Your task to perform on an android device: open app "Upside-Cash back on gas & food" (install if not already installed), go to login, and select forgot password Image 0: 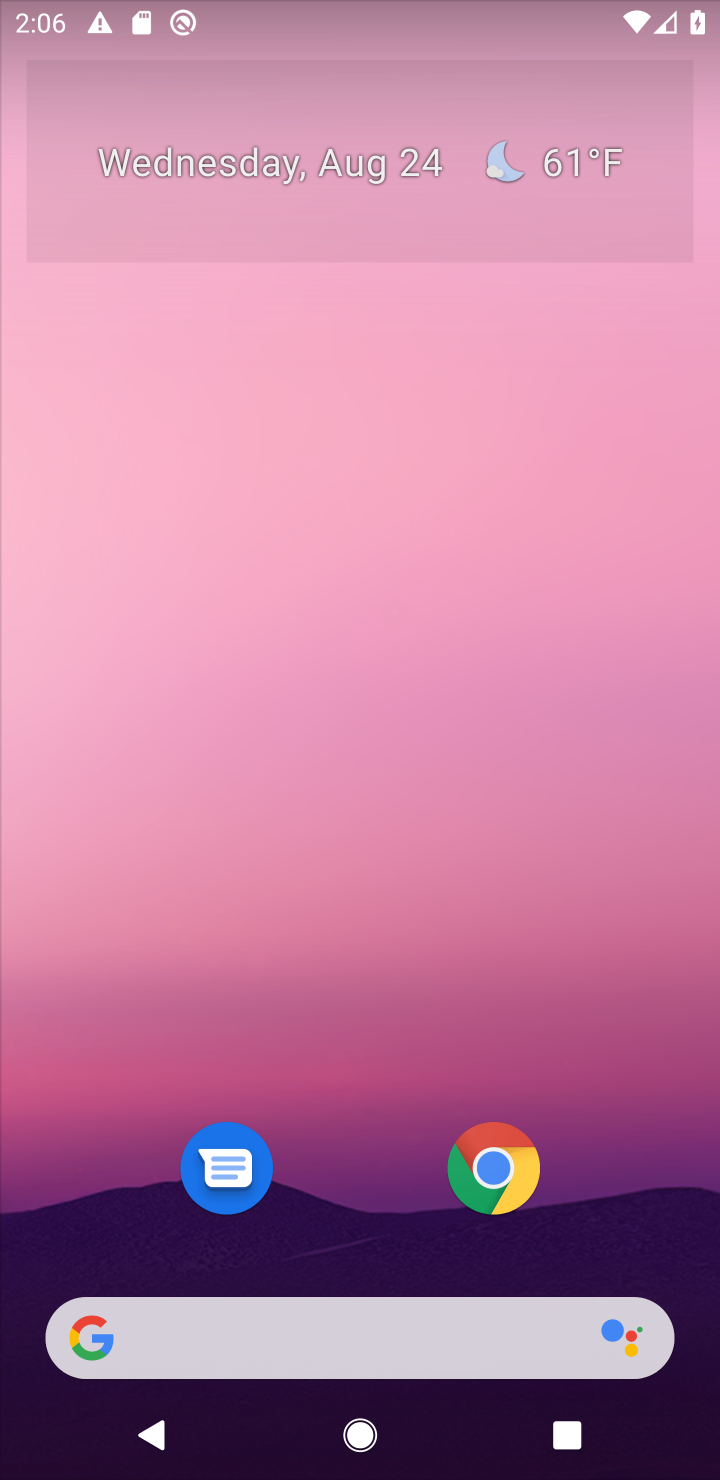
Step 0: drag from (640, 1210) to (582, 239)
Your task to perform on an android device: open app "Upside-Cash back on gas & food" (install if not already installed), go to login, and select forgot password Image 1: 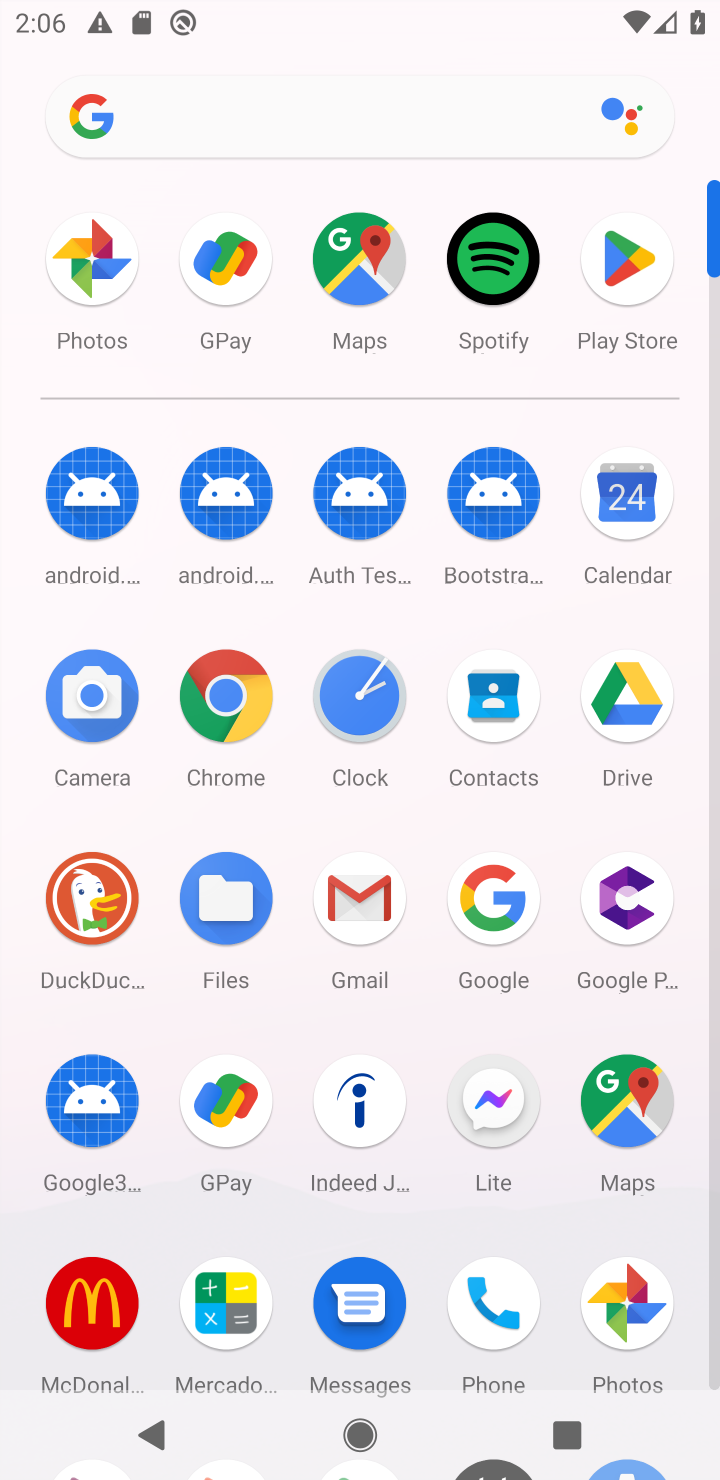
Step 1: click (710, 1224)
Your task to perform on an android device: open app "Upside-Cash back on gas & food" (install if not already installed), go to login, and select forgot password Image 2: 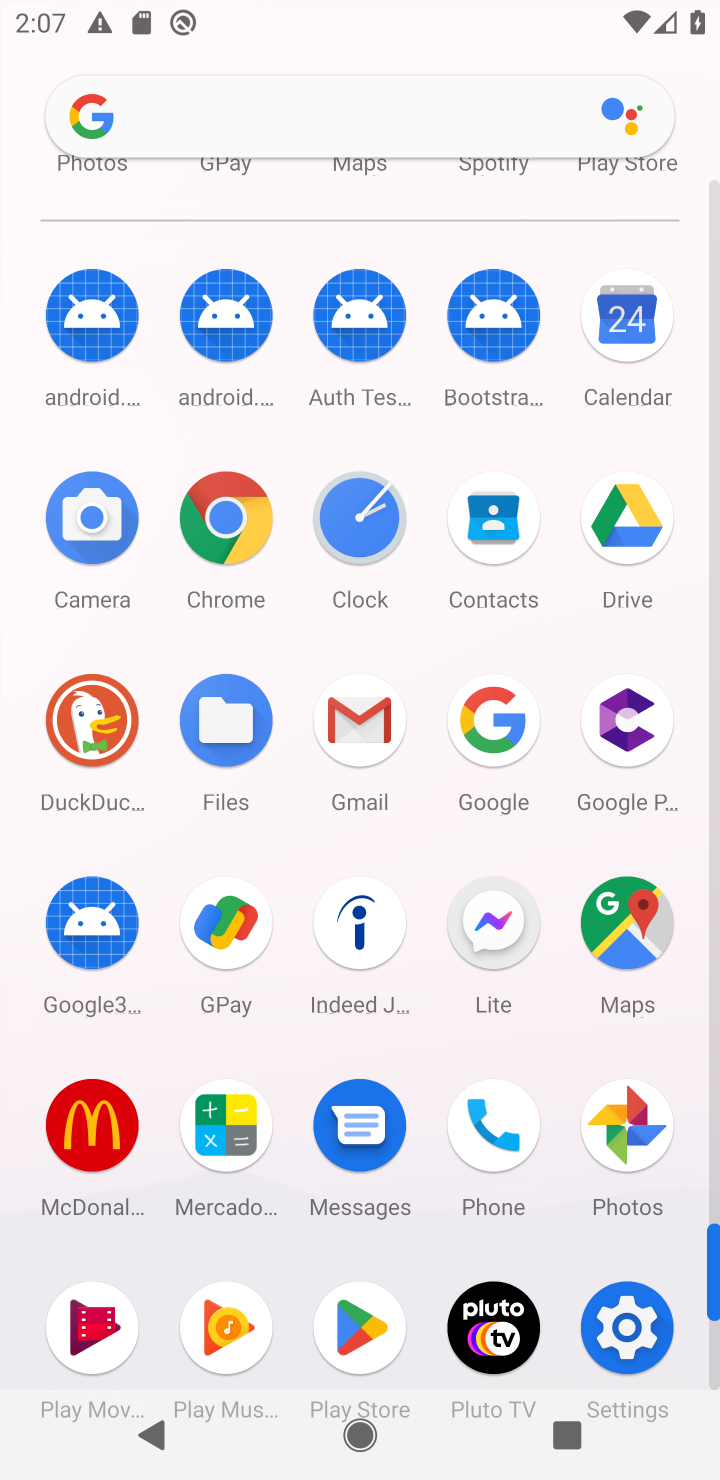
Step 2: click (365, 1320)
Your task to perform on an android device: open app "Upside-Cash back on gas & food" (install if not already installed), go to login, and select forgot password Image 3: 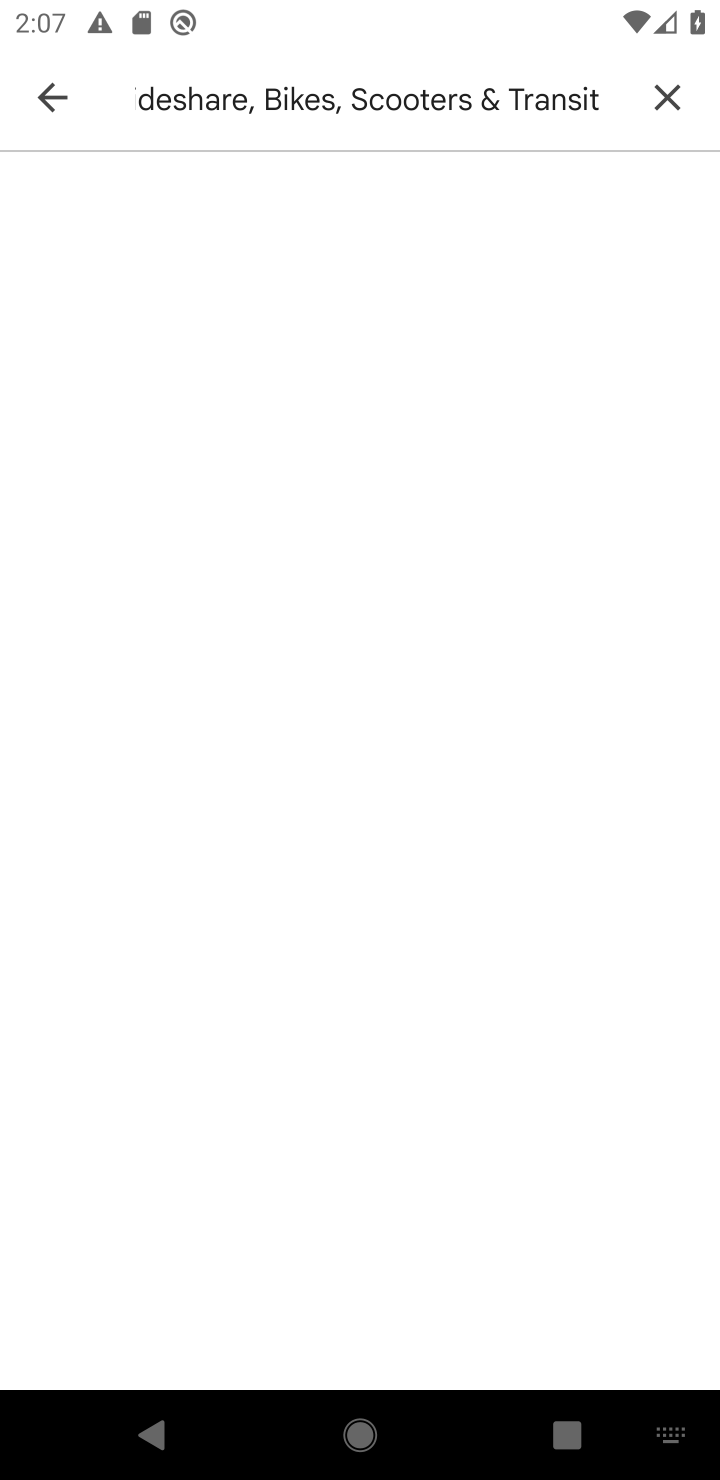
Step 3: click (674, 91)
Your task to perform on an android device: open app "Upside-Cash back on gas & food" (install if not already installed), go to login, and select forgot password Image 4: 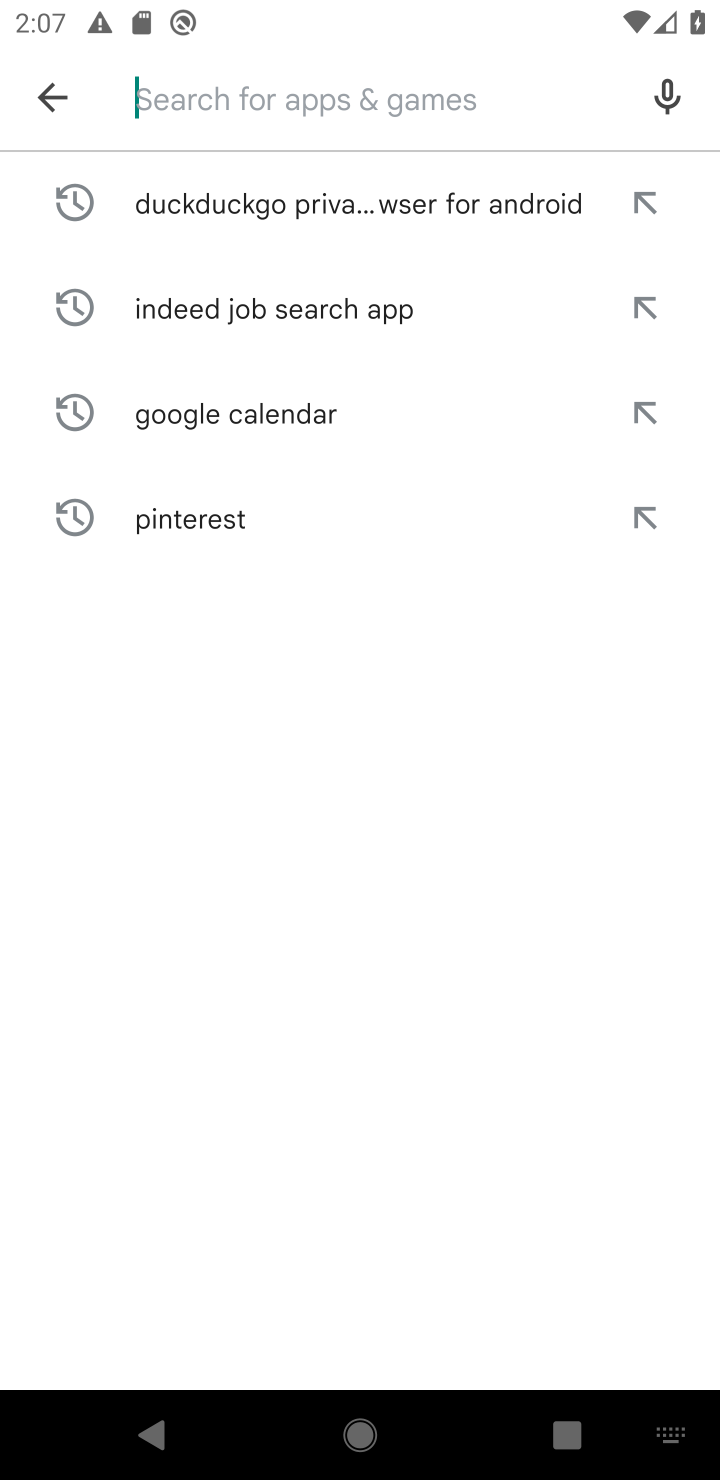
Step 4: type "Upside-Cash back on gas & food"
Your task to perform on an android device: open app "Upside-Cash back on gas & food" (install if not already installed), go to login, and select forgot password Image 5: 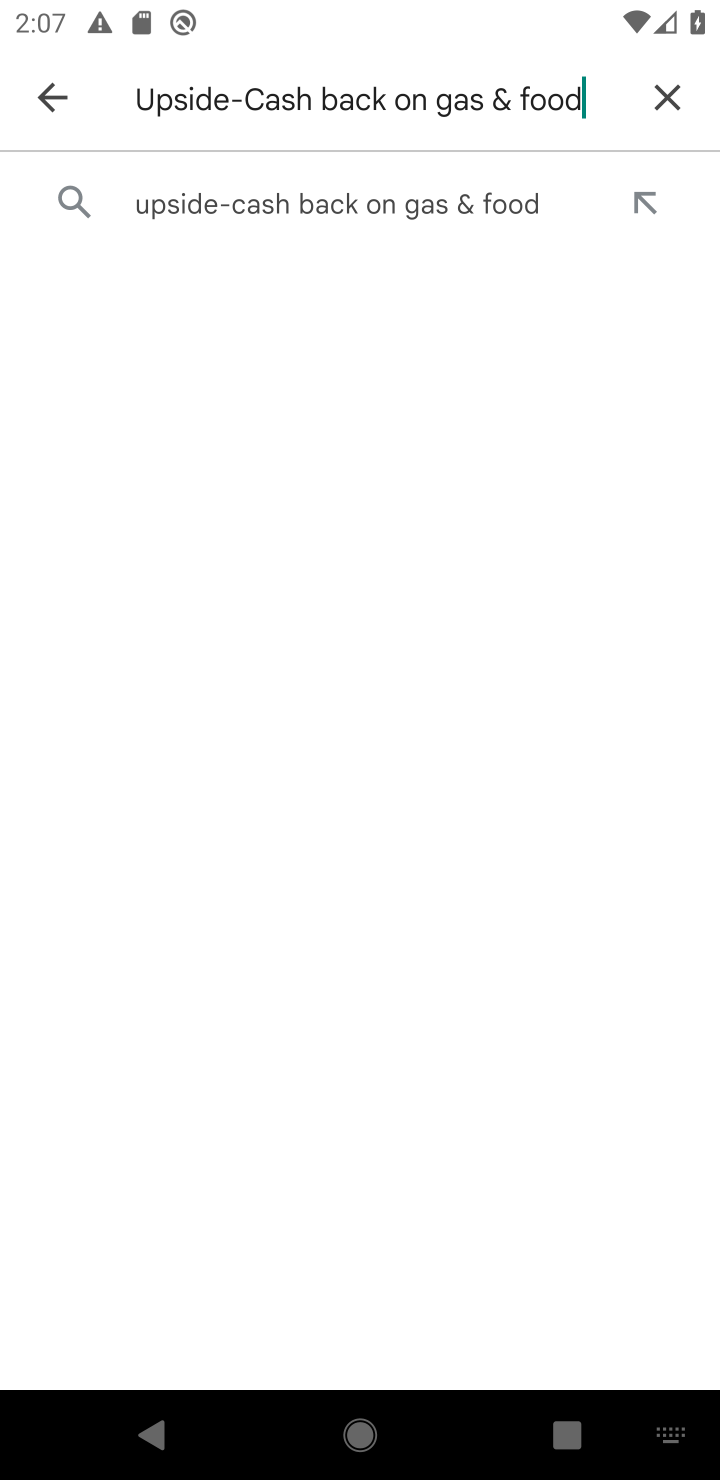
Step 5: click (223, 199)
Your task to perform on an android device: open app "Upside-Cash back on gas & food" (install if not already installed), go to login, and select forgot password Image 6: 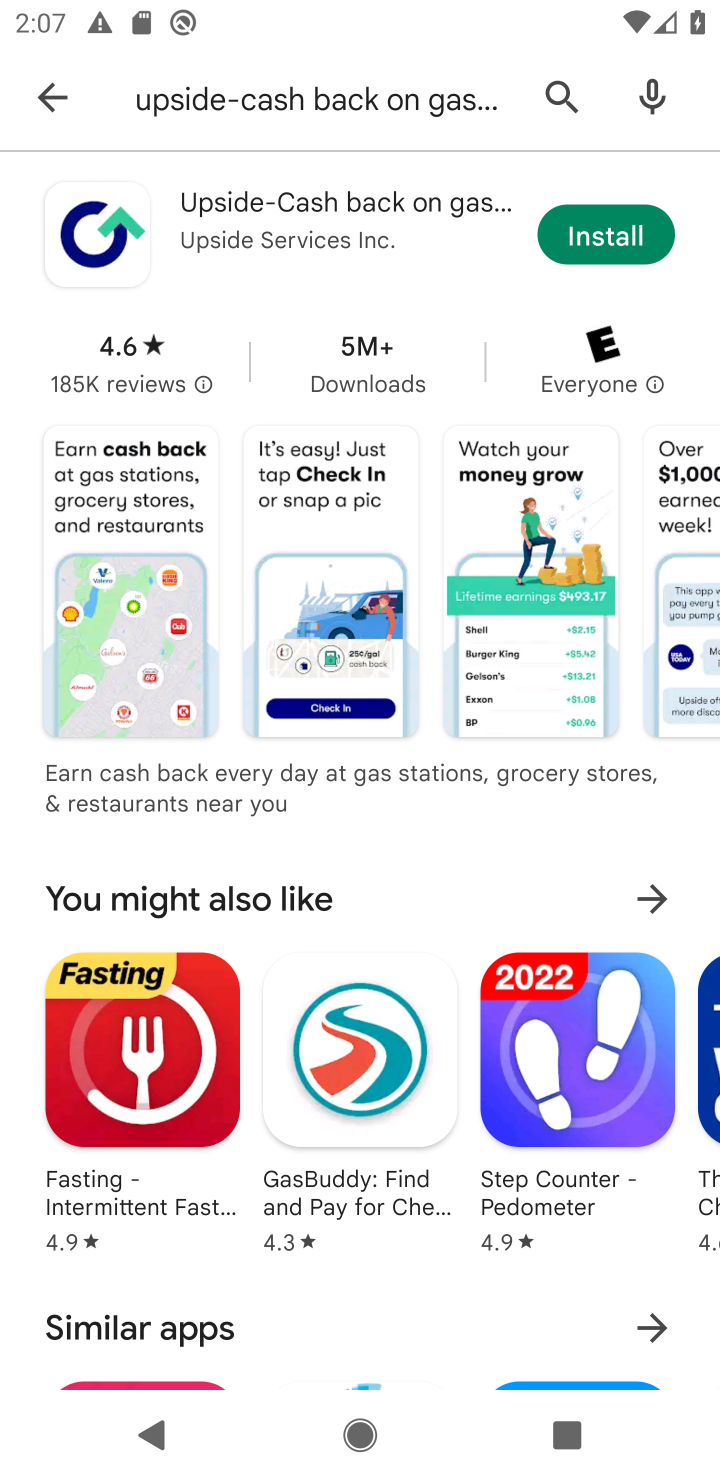
Step 6: click (214, 204)
Your task to perform on an android device: open app "Upside-Cash back on gas & food" (install if not already installed), go to login, and select forgot password Image 7: 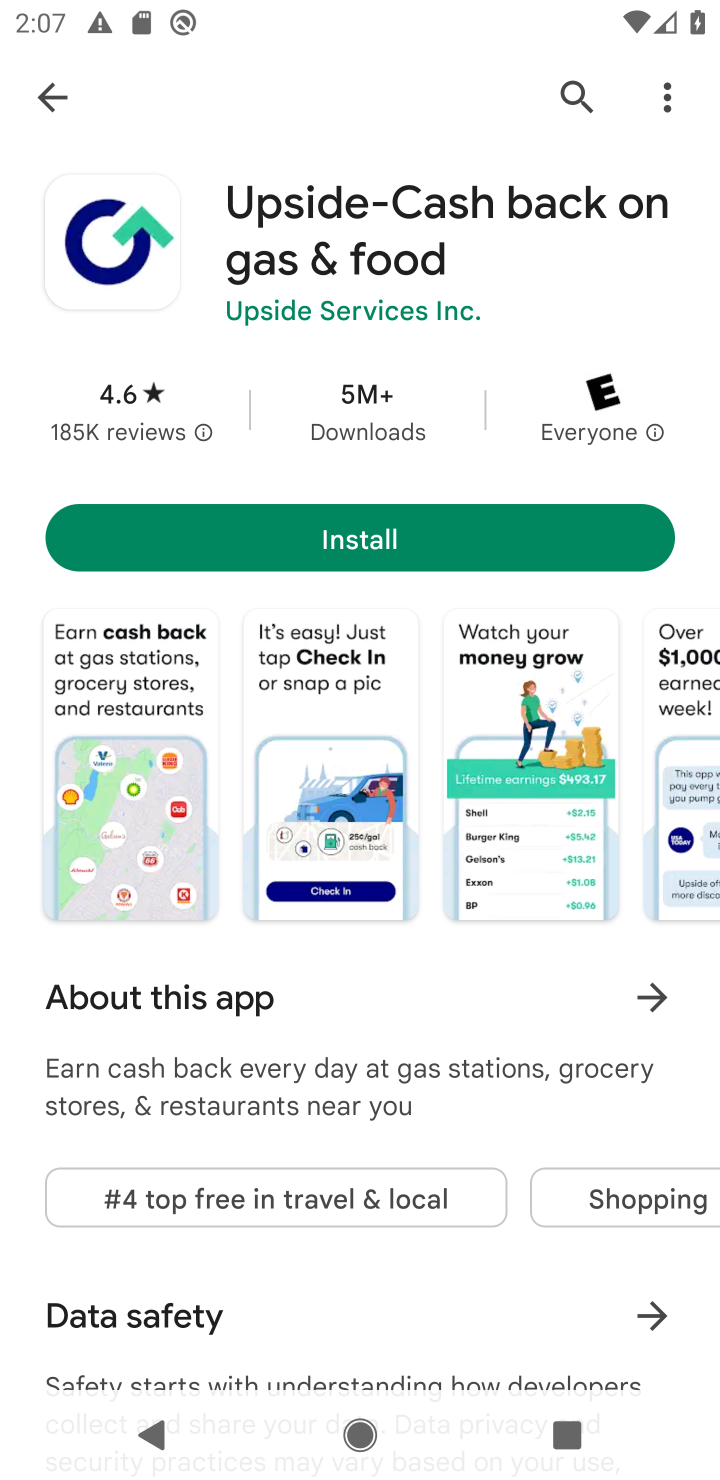
Step 7: click (354, 541)
Your task to perform on an android device: open app "Upside-Cash back on gas & food" (install if not already installed), go to login, and select forgot password Image 8: 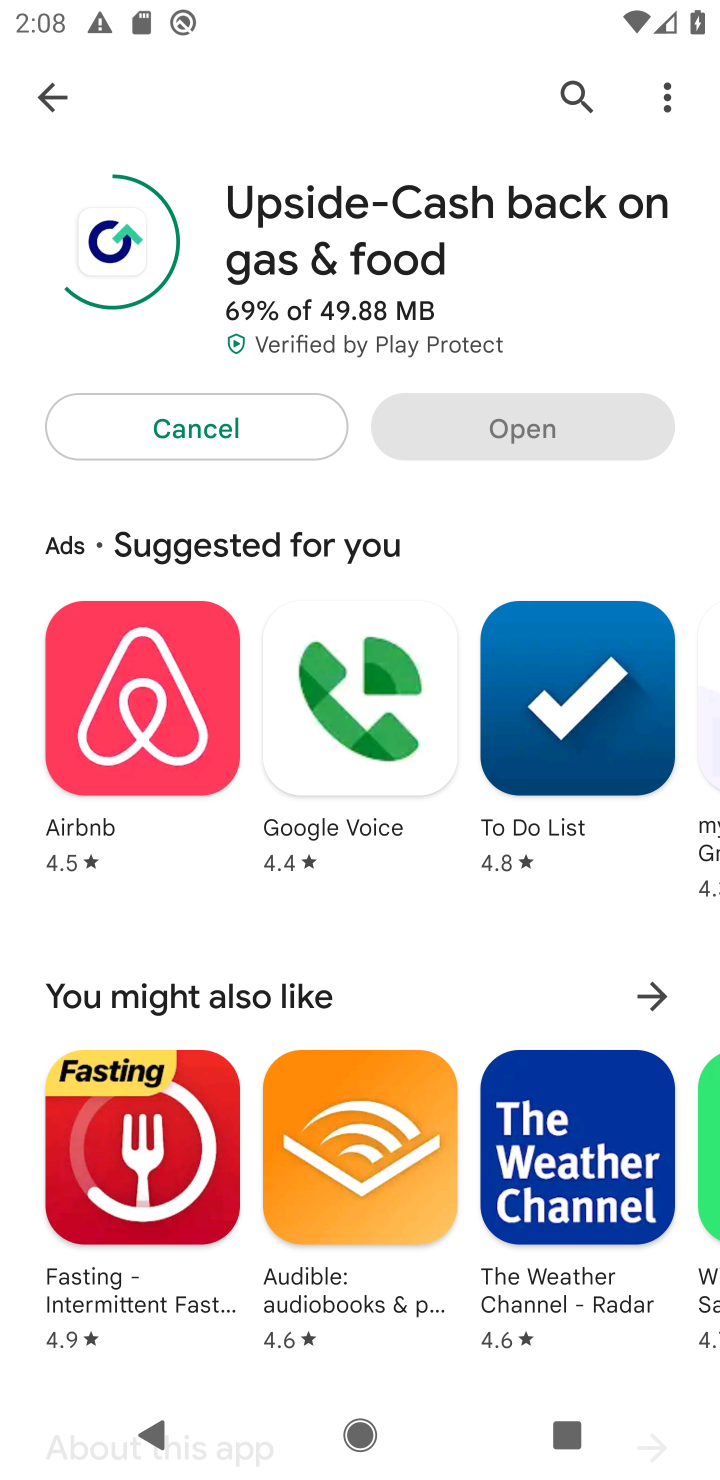
Step 8: click (343, 266)
Your task to perform on an android device: open app "Upside-Cash back on gas & food" (install if not already installed), go to login, and select forgot password Image 9: 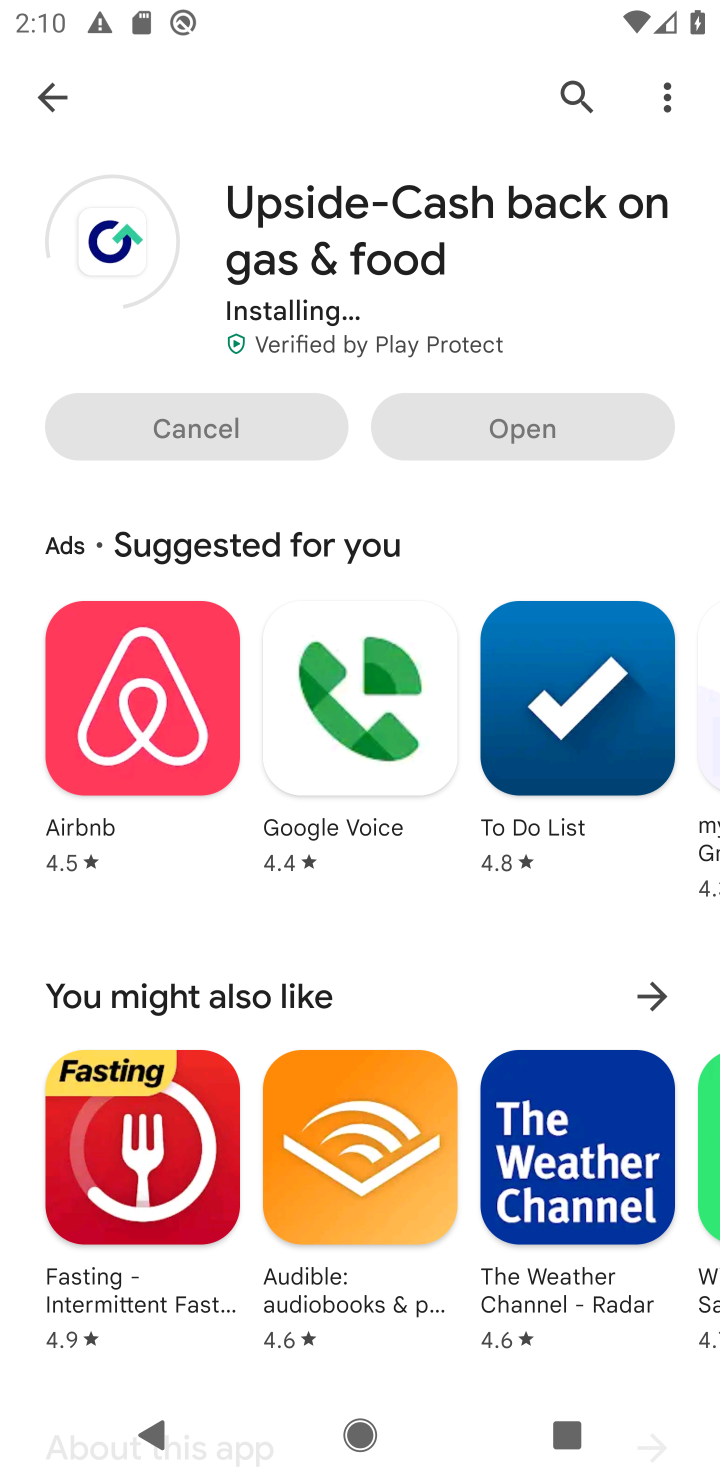
Step 9: drag from (339, 228) to (350, 392)
Your task to perform on an android device: open app "Upside-Cash back on gas & food" (install if not already installed), go to login, and select forgot password Image 10: 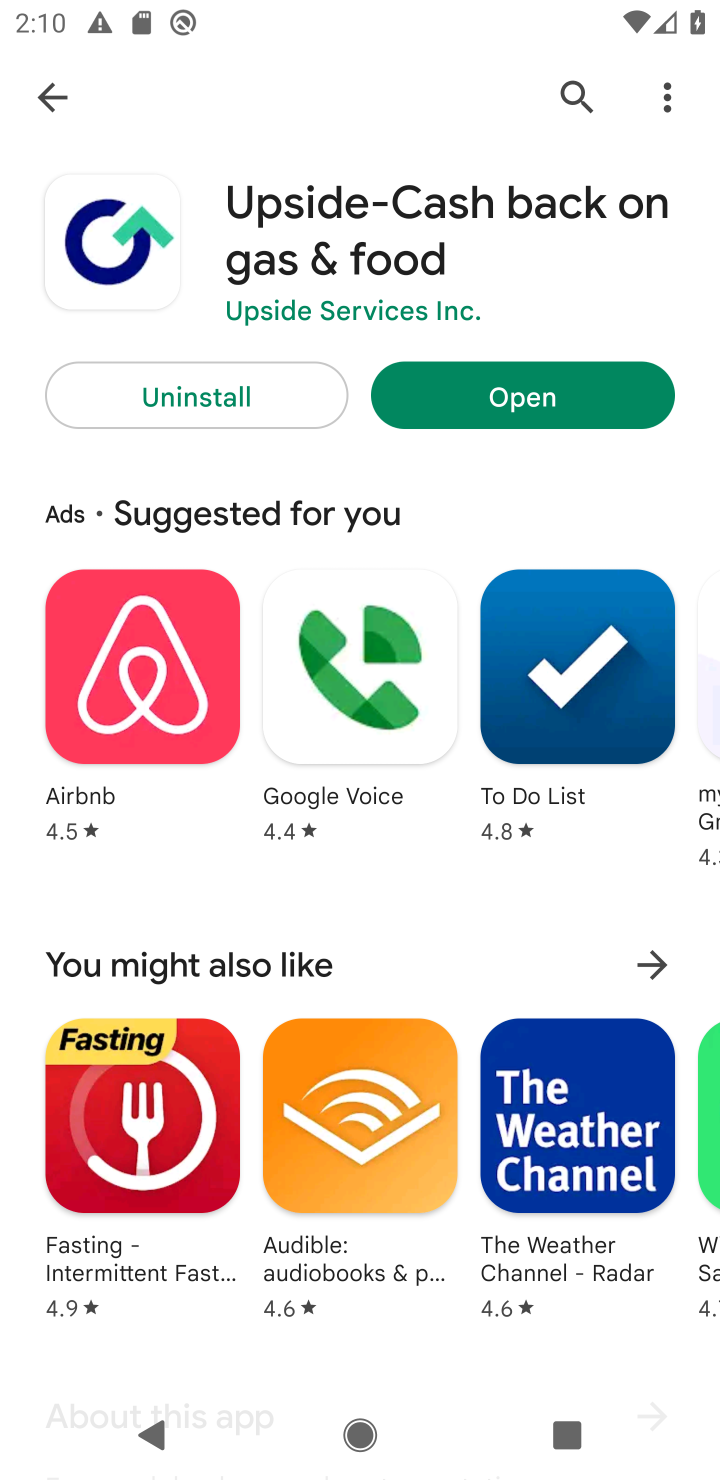
Step 10: click (521, 392)
Your task to perform on an android device: open app "Upside-Cash back on gas & food" (install if not already installed), go to login, and select forgot password Image 11: 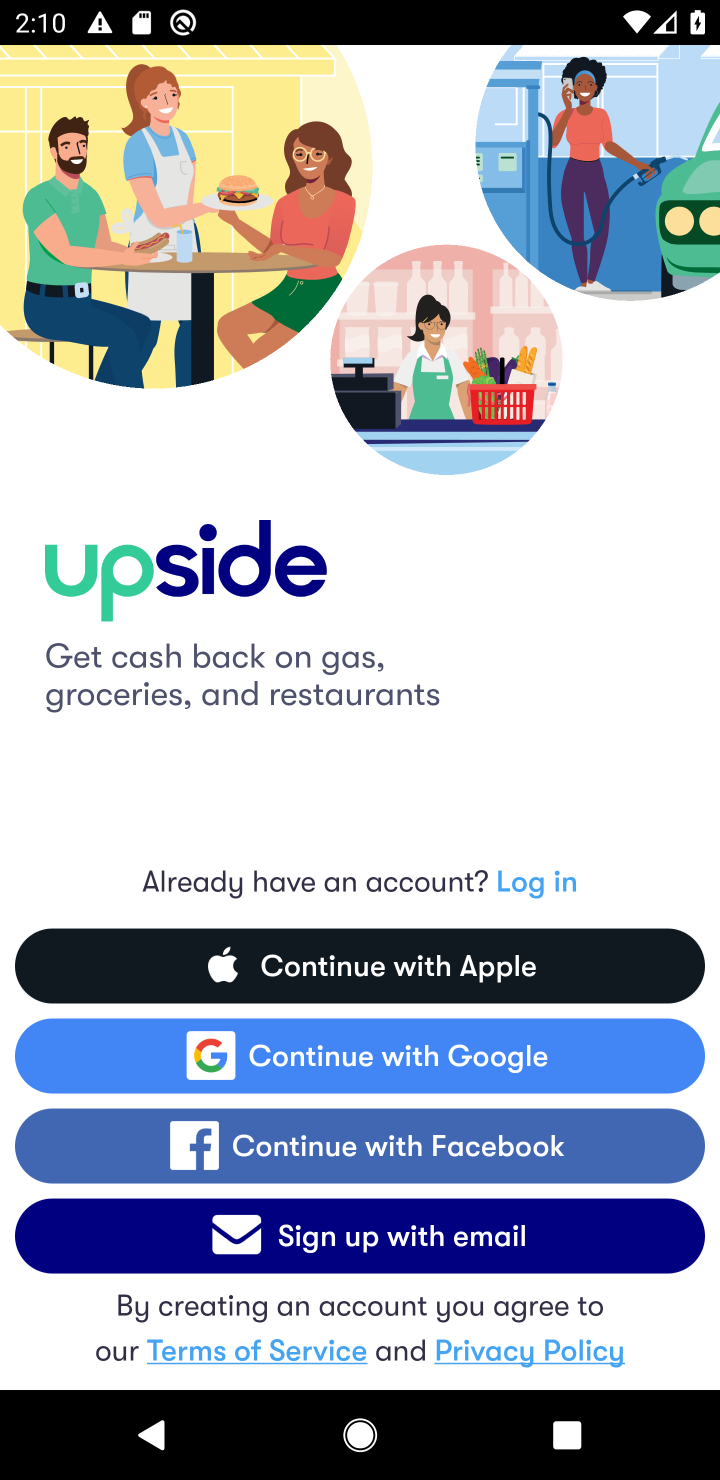
Step 11: click (349, 1233)
Your task to perform on an android device: open app "Upside-Cash back on gas & food" (install if not already installed), go to login, and select forgot password Image 12: 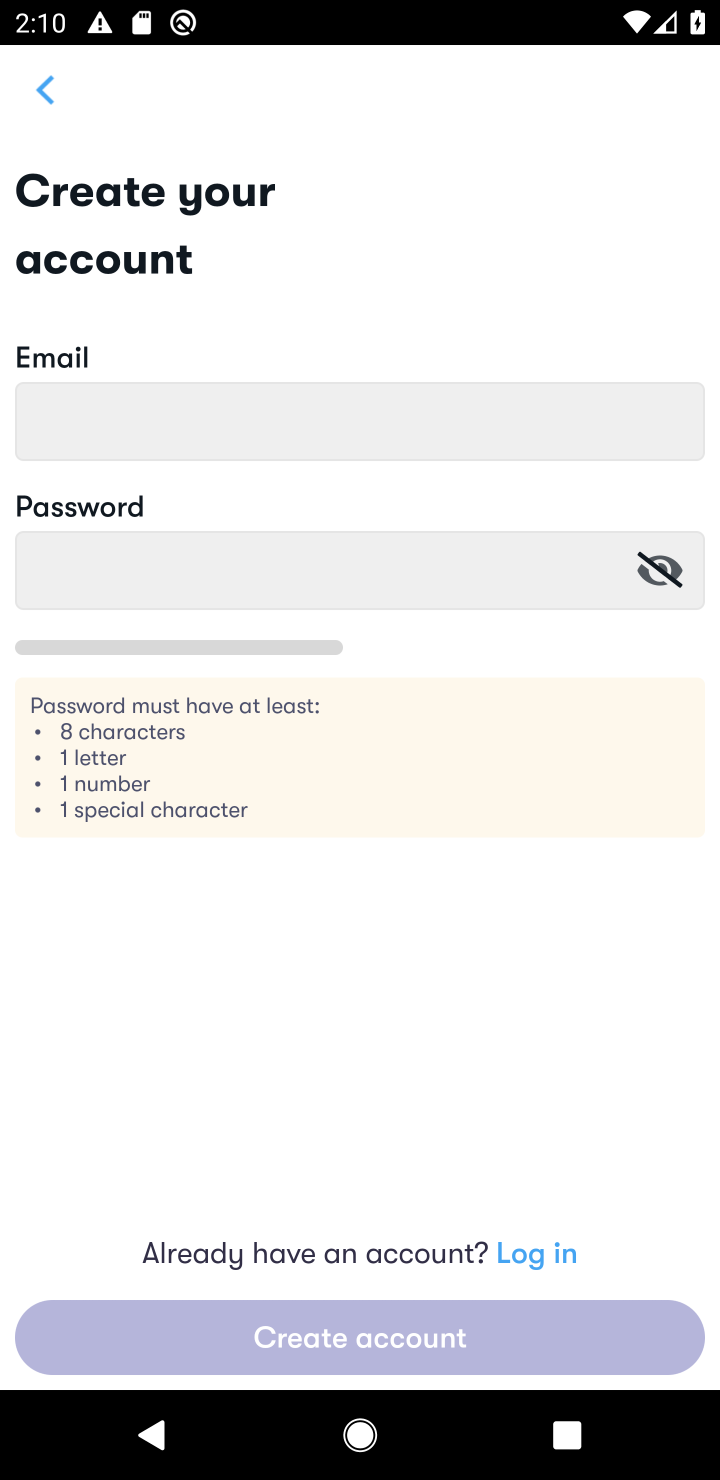
Step 12: click (520, 1253)
Your task to perform on an android device: open app "Upside-Cash back on gas & food" (install if not already installed), go to login, and select forgot password Image 13: 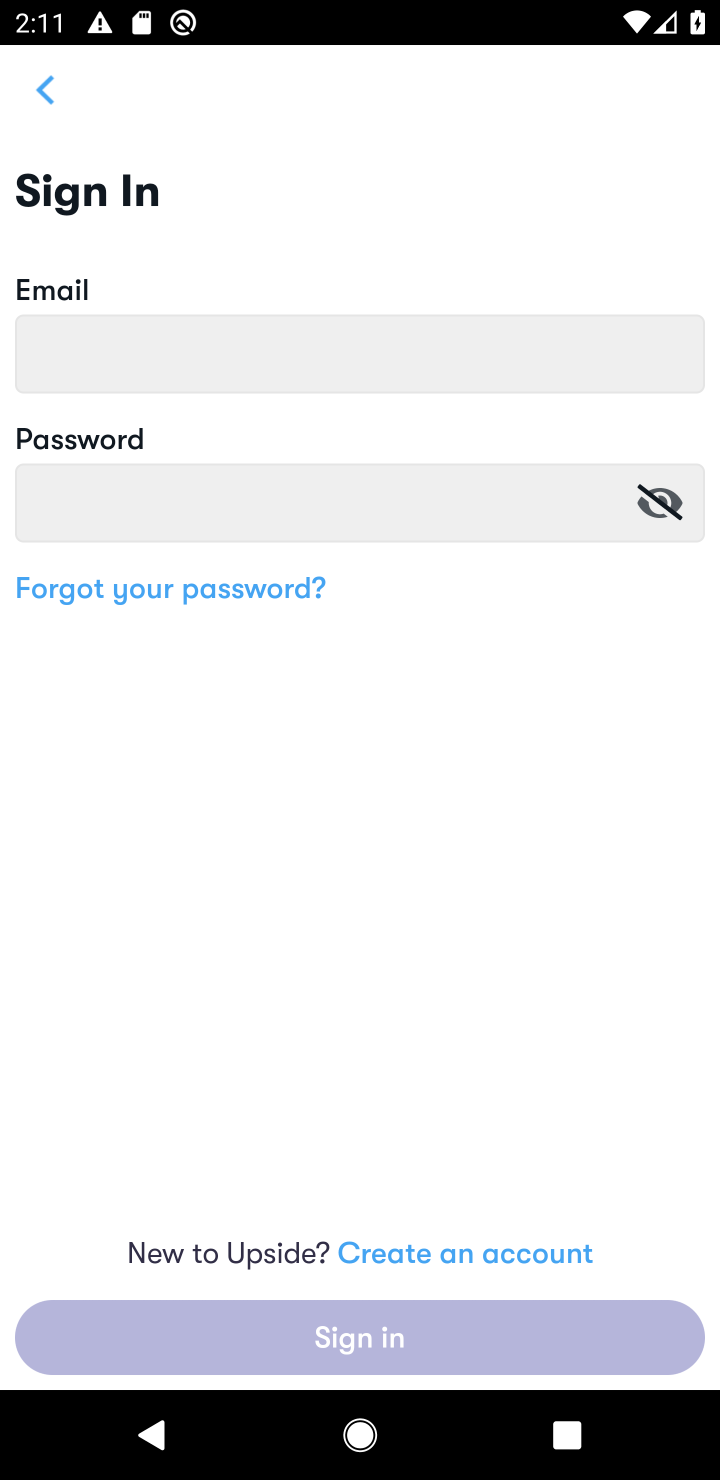
Step 13: click (155, 587)
Your task to perform on an android device: open app "Upside-Cash back on gas & food" (install if not already installed), go to login, and select forgot password Image 14: 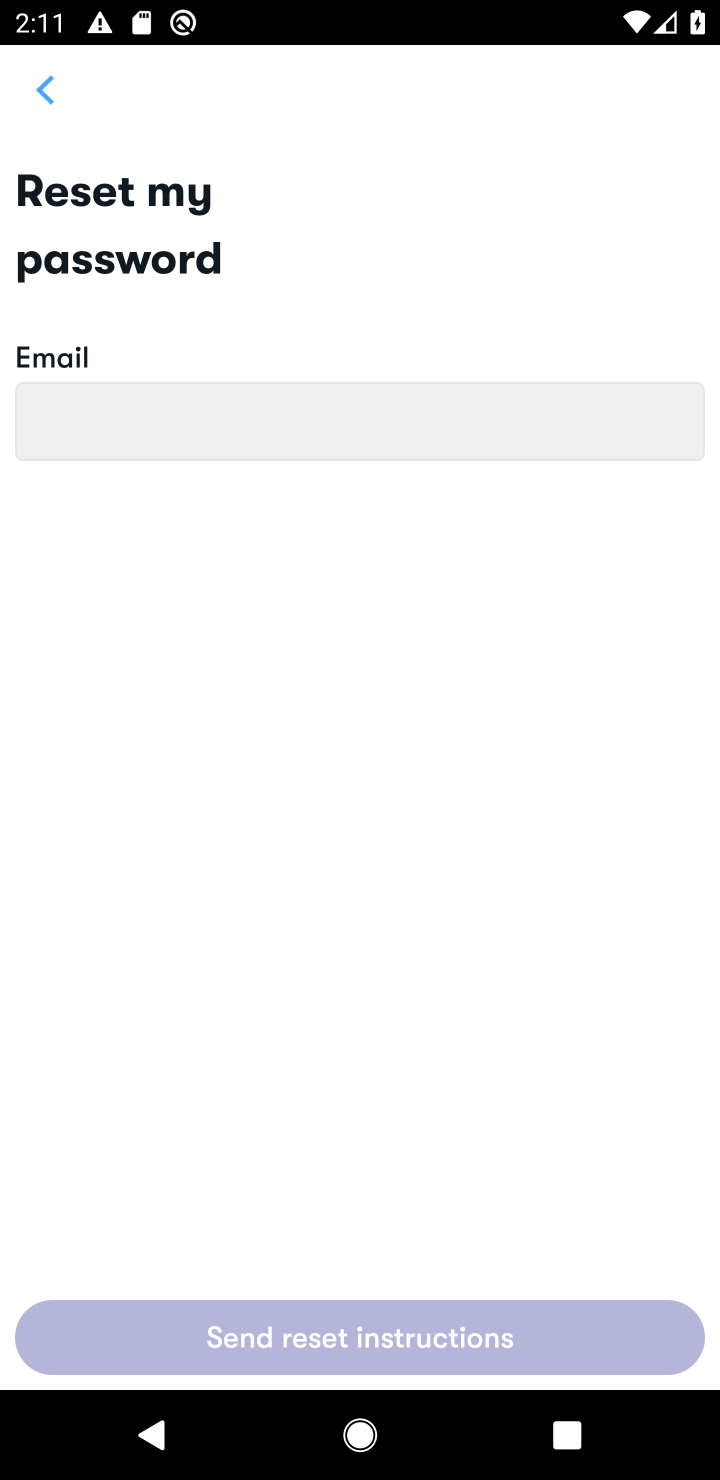
Step 14: task complete